Your task to perform on an android device: Show me productivity apps on the Play Store Image 0: 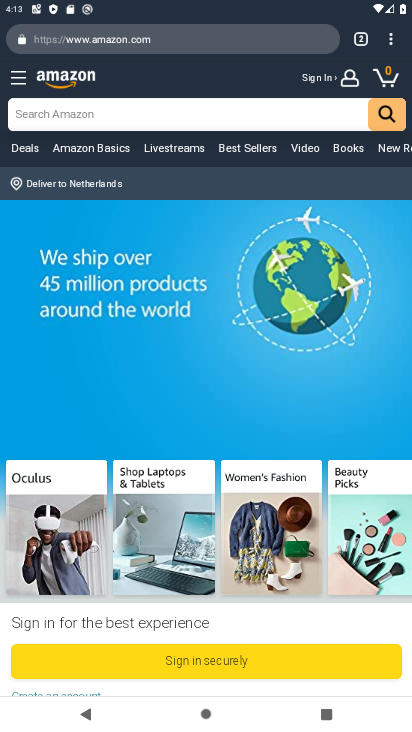
Step 0: press home button
Your task to perform on an android device: Show me productivity apps on the Play Store Image 1: 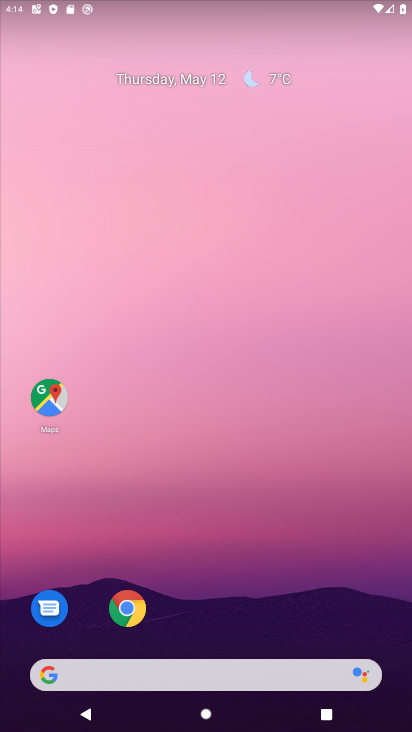
Step 1: drag from (188, 607) to (196, 22)
Your task to perform on an android device: Show me productivity apps on the Play Store Image 2: 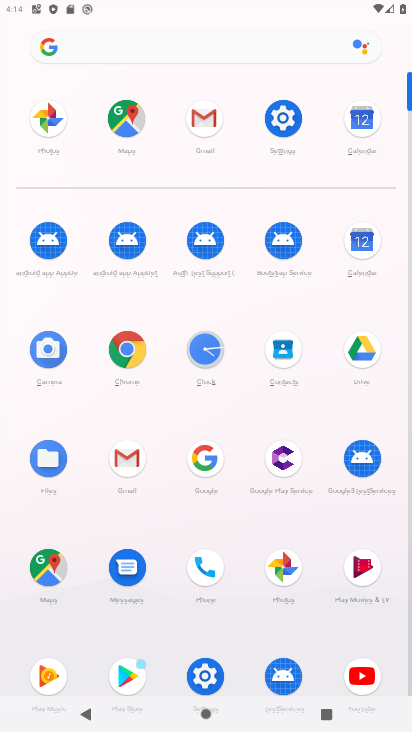
Step 2: click (124, 687)
Your task to perform on an android device: Show me productivity apps on the Play Store Image 3: 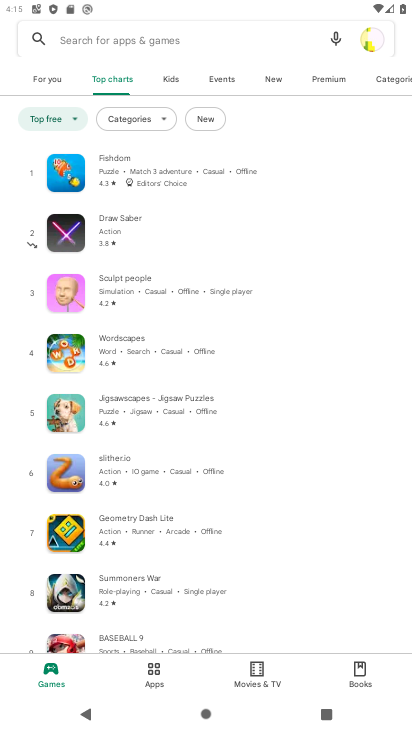
Step 3: click (150, 674)
Your task to perform on an android device: Show me productivity apps on the Play Store Image 4: 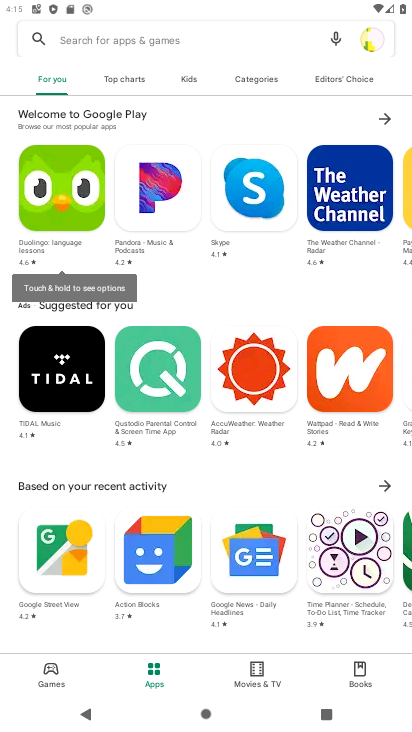
Step 4: click (254, 84)
Your task to perform on an android device: Show me productivity apps on the Play Store Image 5: 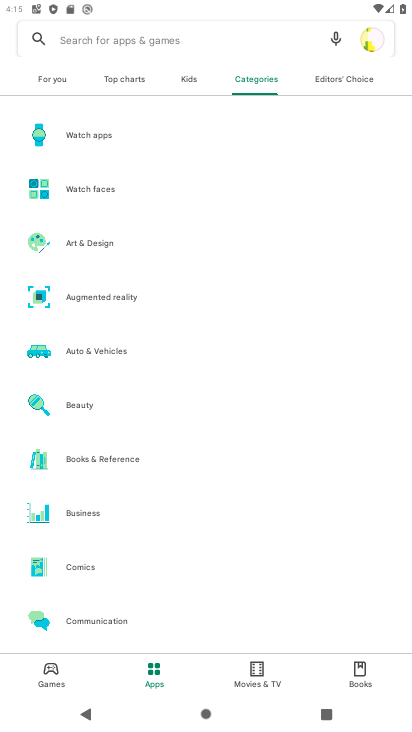
Step 5: drag from (111, 620) to (153, 184)
Your task to perform on an android device: Show me productivity apps on the Play Store Image 6: 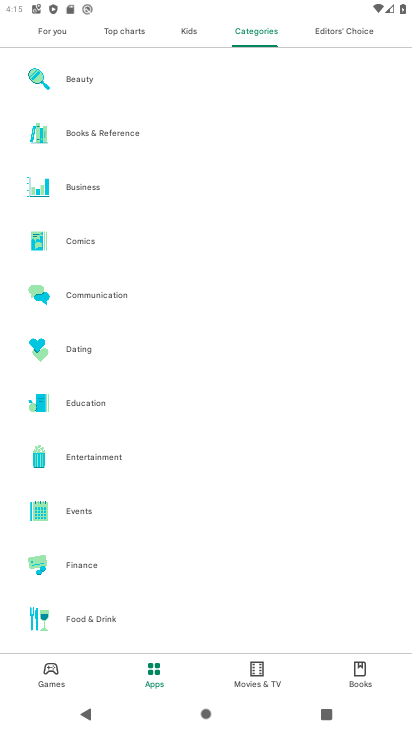
Step 6: drag from (62, 677) to (26, 414)
Your task to perform on an android device: Show me productivity apps on the Play Store Image 7: 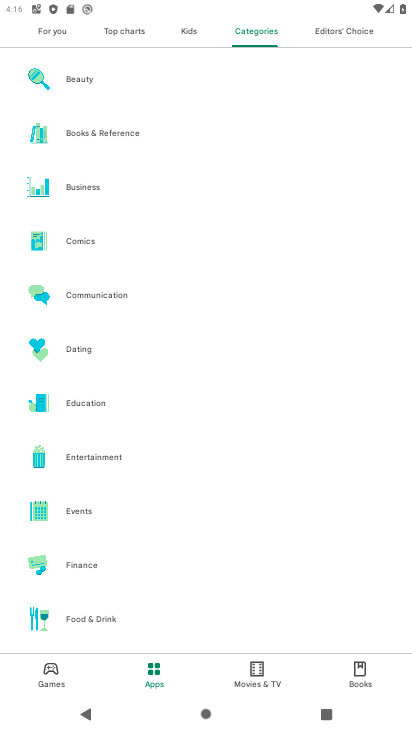
Step 7: drag from (118, 597) to (156, 187)
Your task to perform on an android device: Show me productivity apps on the Play Store Image 8: 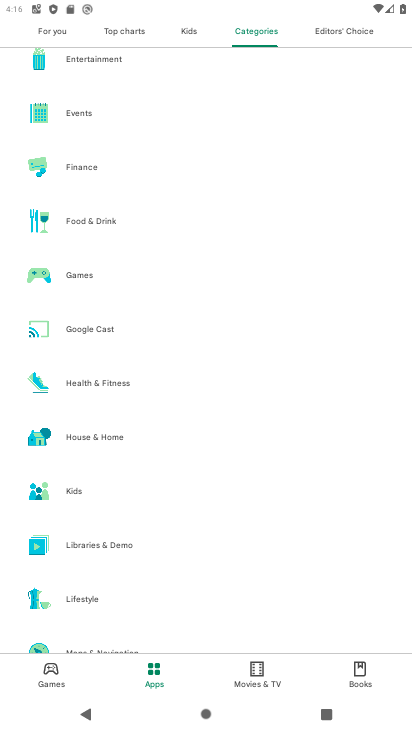
Step 8: drag from (130, 581) to (159, 84)
Your task to perform on an android device: Show me productivity apps on the Play Store Image 9: 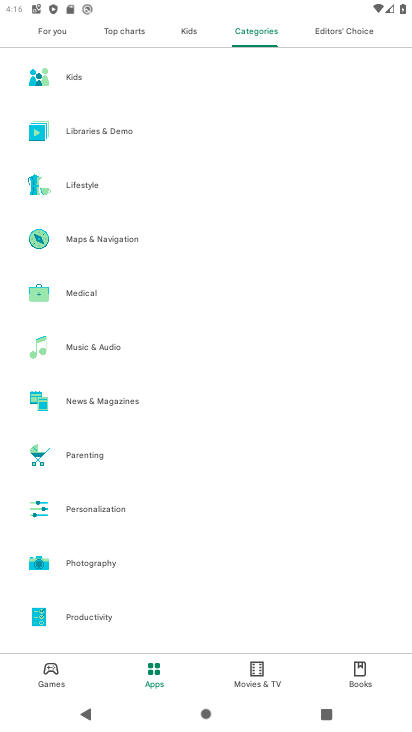
Step 9: click (117, 627)
Your task to perform on an android device: Show me productivity apps on the Play Store Image 10: 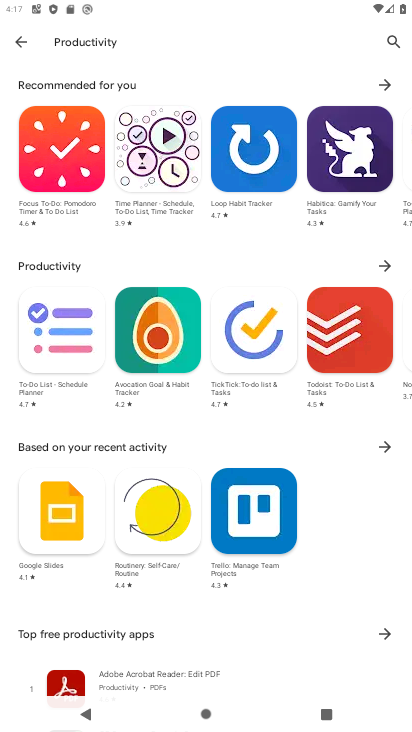
Step 10: task complete